Your task to perform on an android device: Open calendar and show me the second week of next month Image 0: 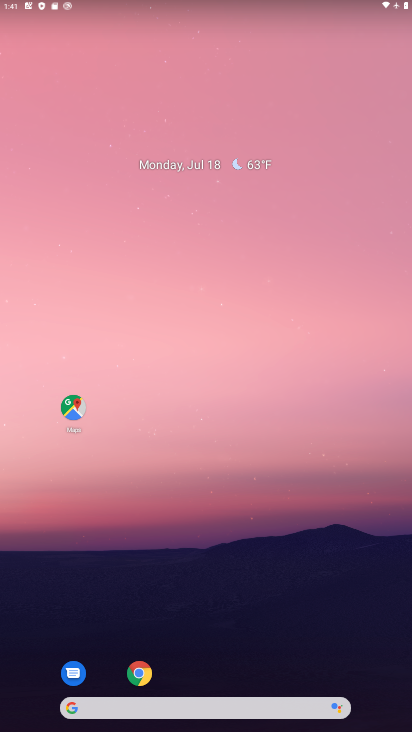
Step 0: drag from (241, 650) to (230, 198)
Your task to perform on an android device: Open calendar and show me the second week of next month Image 1: 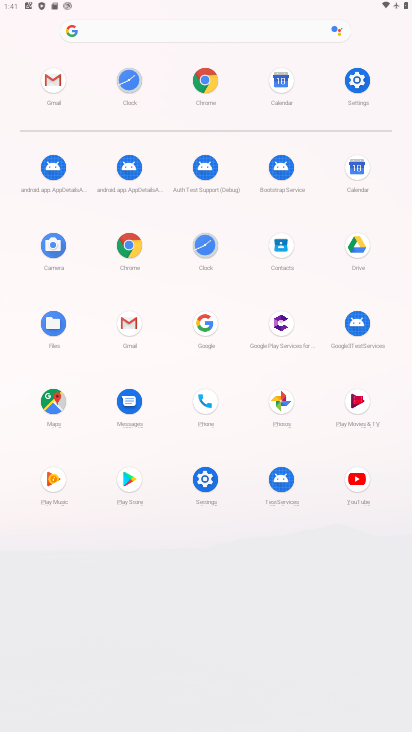
Step 1: click (357, 156)
Your task to perform on an android device: Open calendar and show me the second week of next month Image 2: 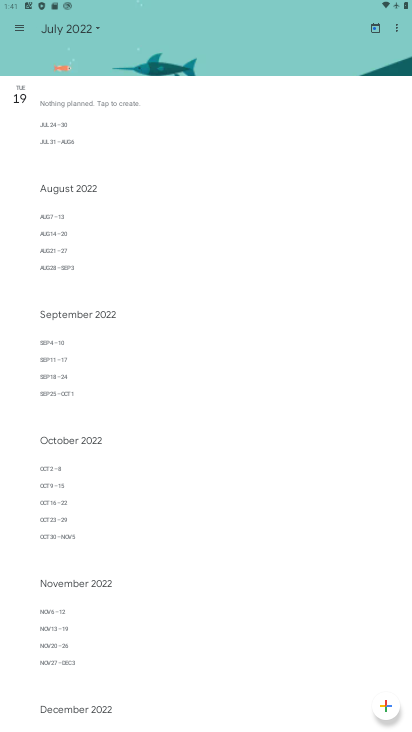
Step 2: click (17, 16)
Your task to perform on an android device: Open calendar and show me the second week of next month Image 3: 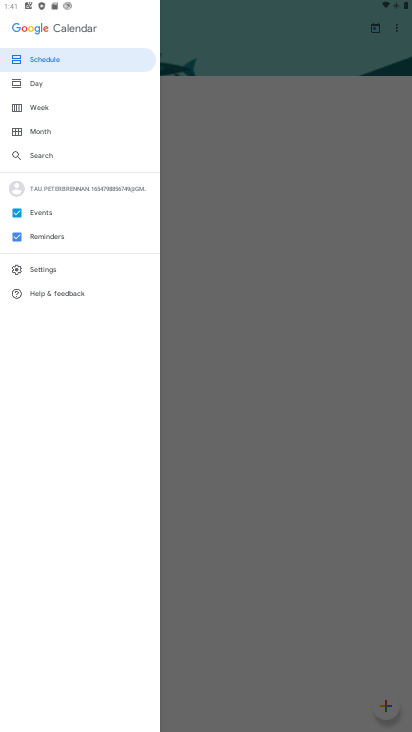
Step 3: click (36, 131)
Your task to perform on an android device: Open calendar and show me the second week of next month Image 4: 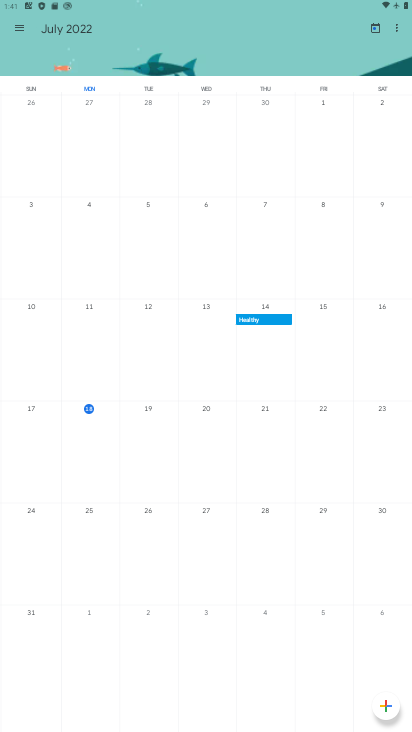
Step 4: task complete